Your task to perform on an android device: Clear all items from cart on target.com. Image 0: 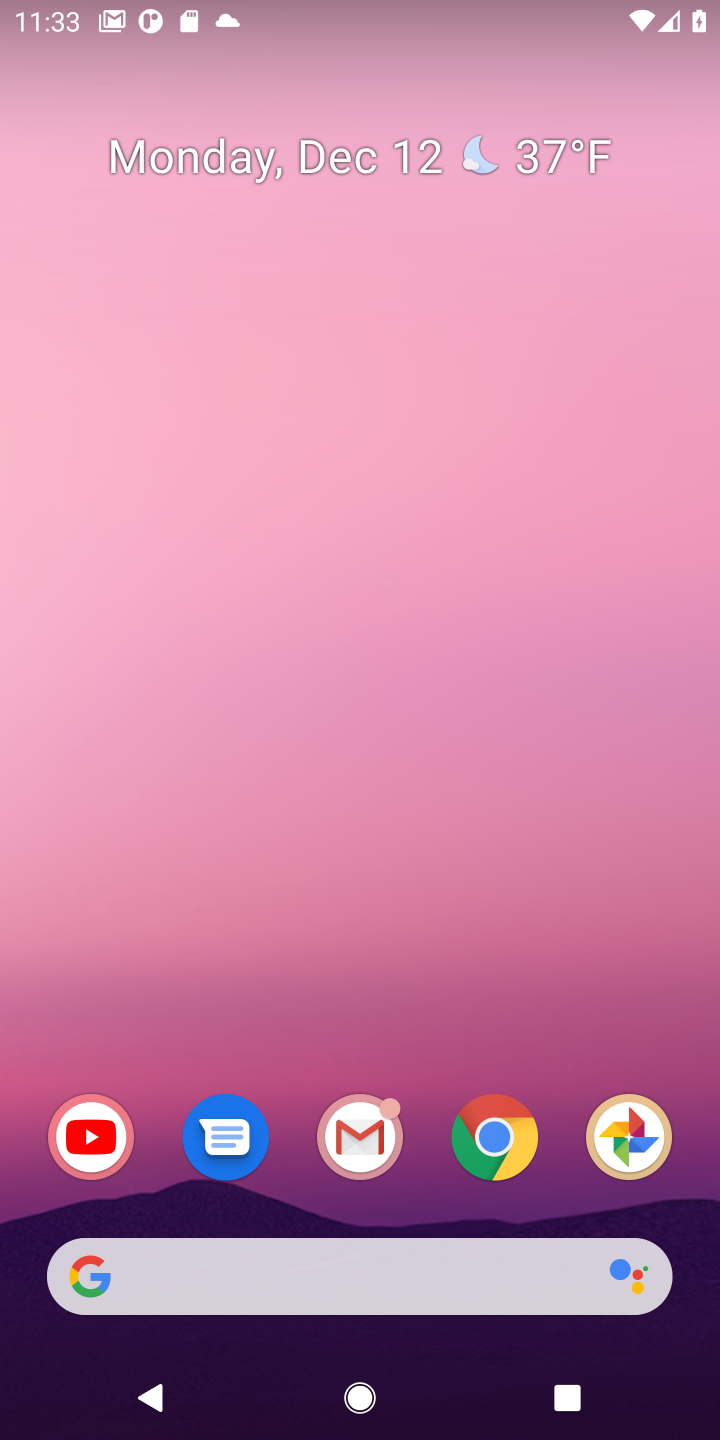
Step 0: click (436, 1298)
Your task to perform on an android device: Clear all items from cart on target.com. Image 1: 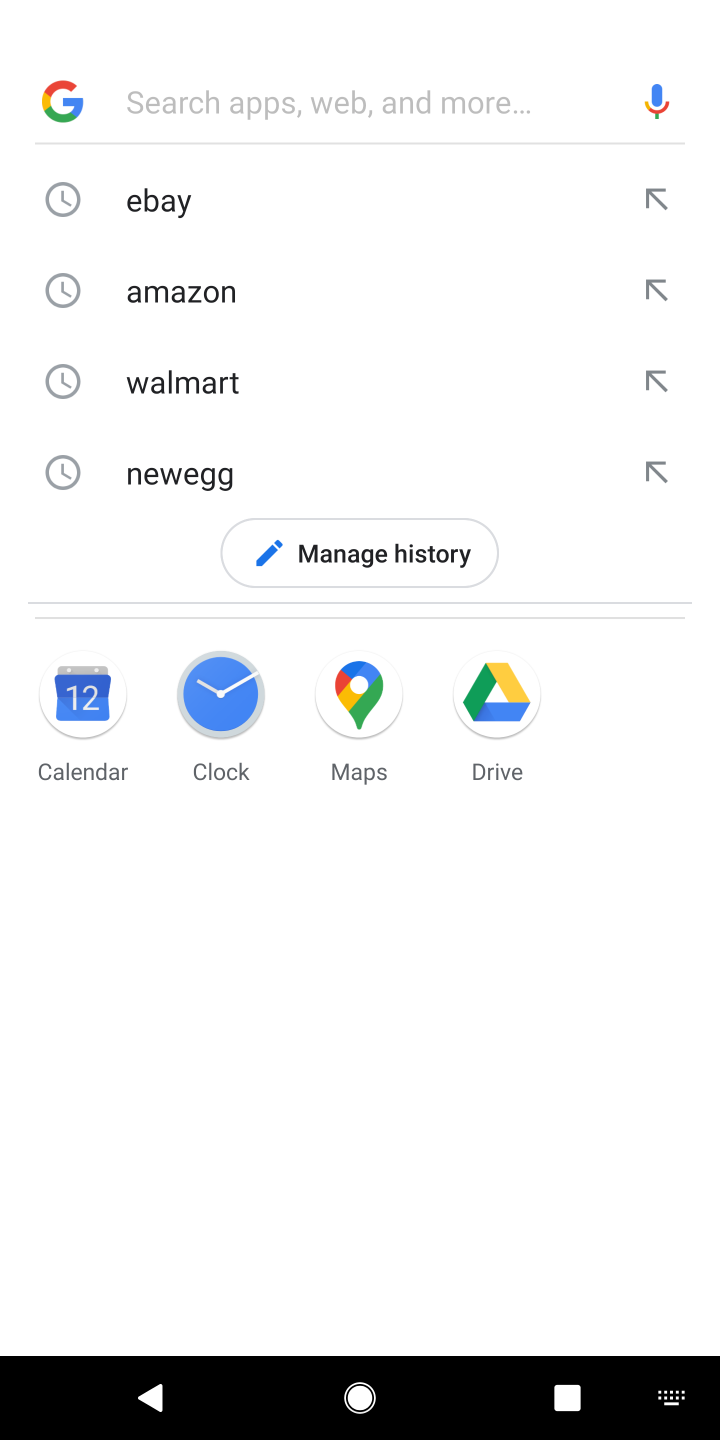
Step 1: type "target"
Your task to perform on an android device: Clear all items from cart on target.com. Image 2: 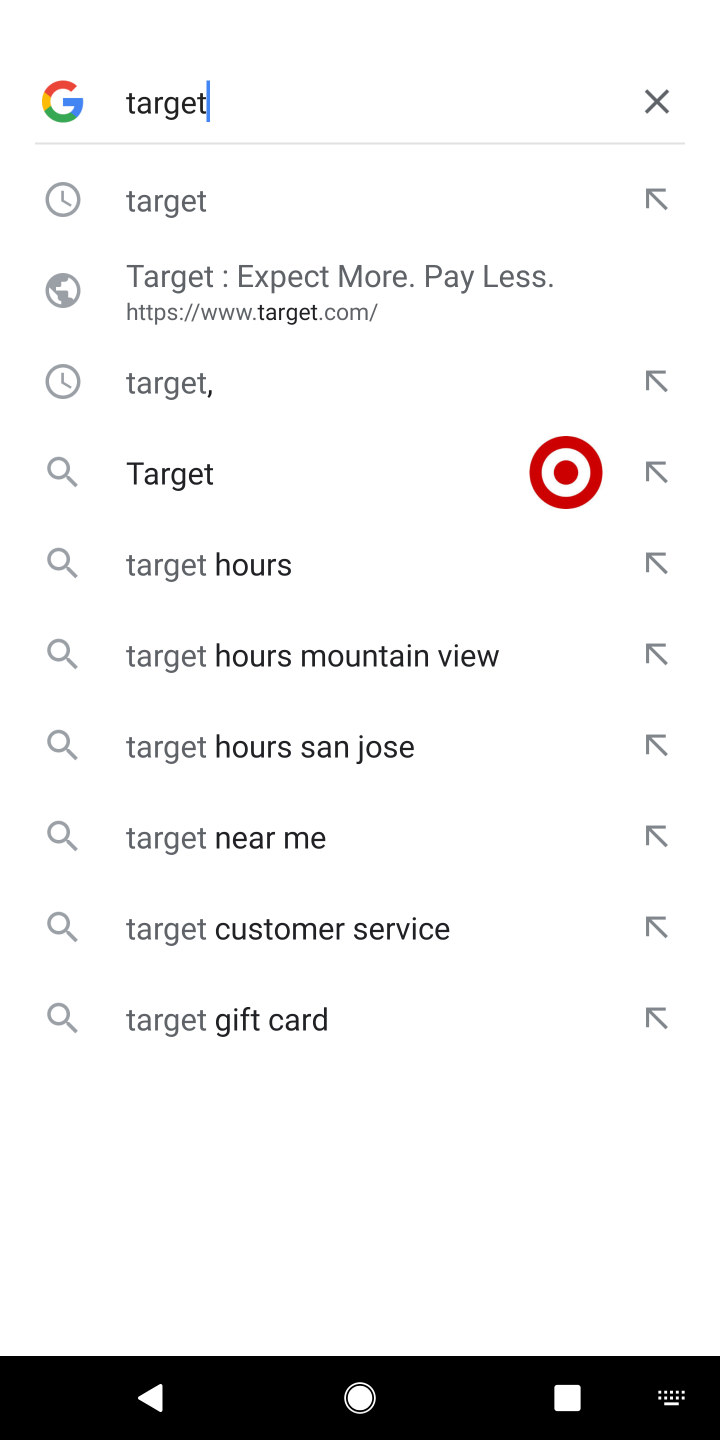
Step 2: click (222, 479)
Your task to perform on an android device: Clear all items from cart on target.com. Image 3: 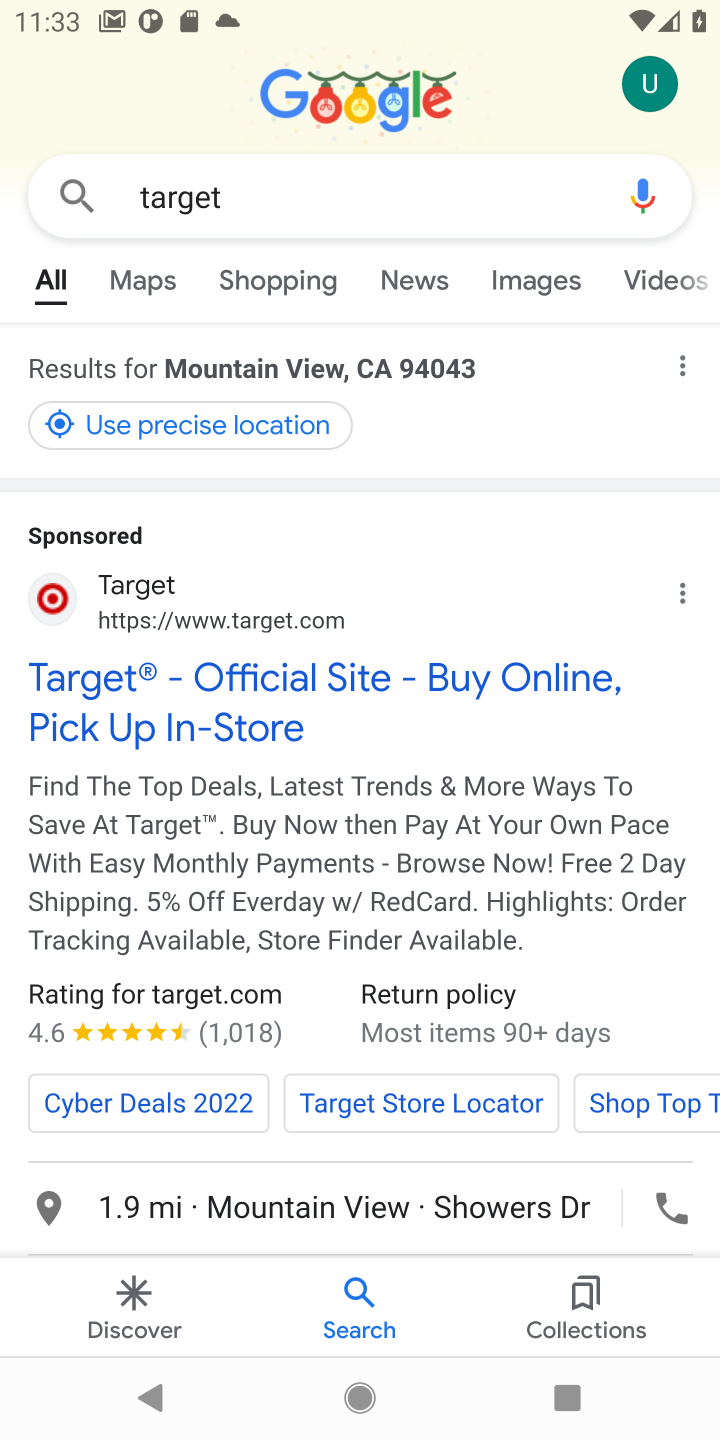
Step 3: click (147, 669)
Your task to perform on an android device: Clear all items from cart on target.com. Image 4: 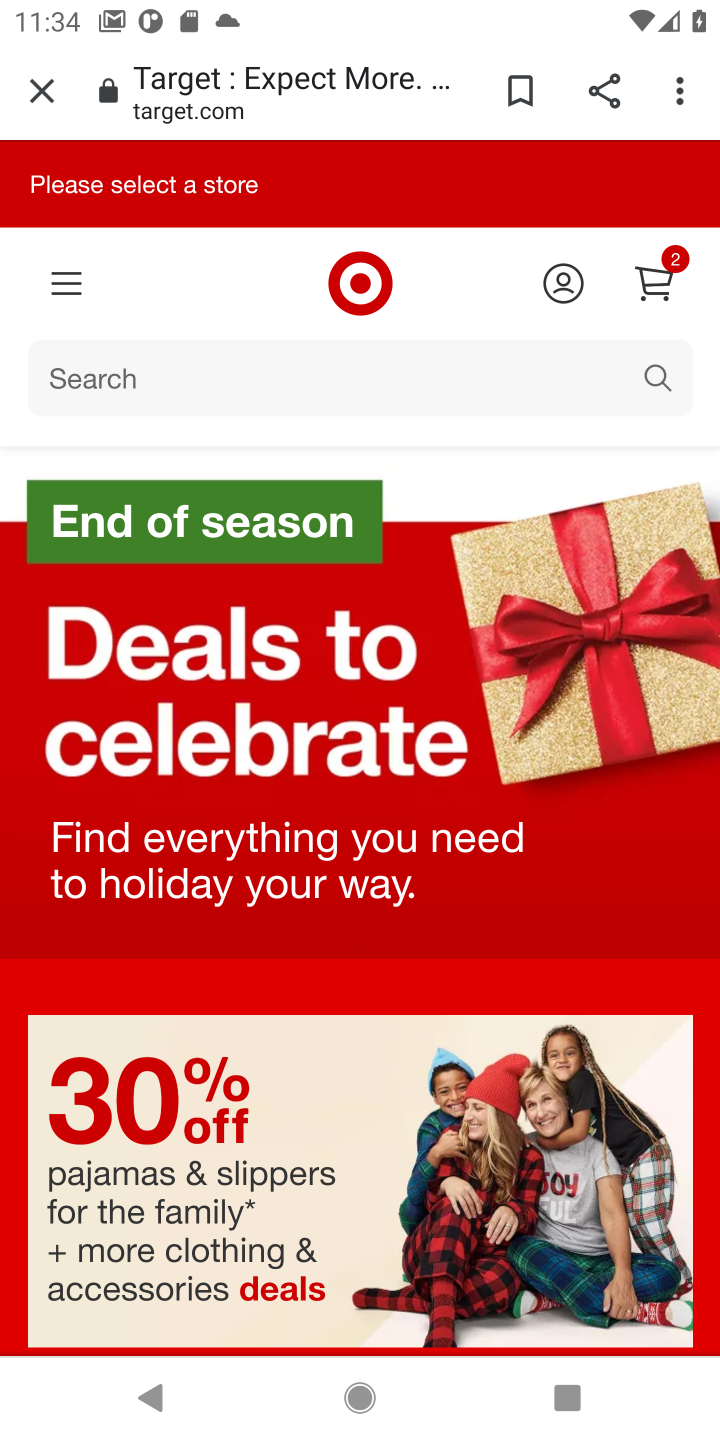
Step 4: click (123, 383)
Your task to perform on an android device: Clear all items from cart on target.com. Image 5: 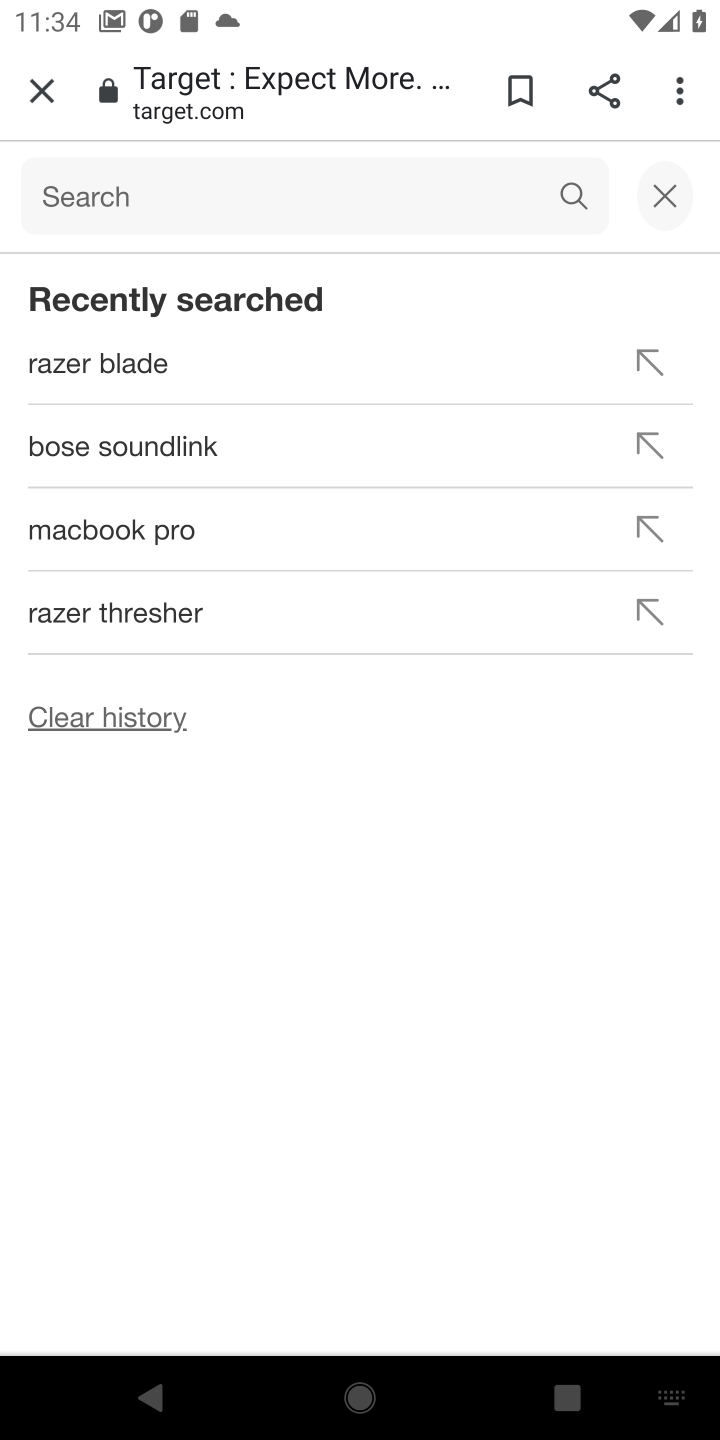
Step 5: click (658, 200)
Your task to perform on an android device: Clear all items from cart on target.com. Image 6: 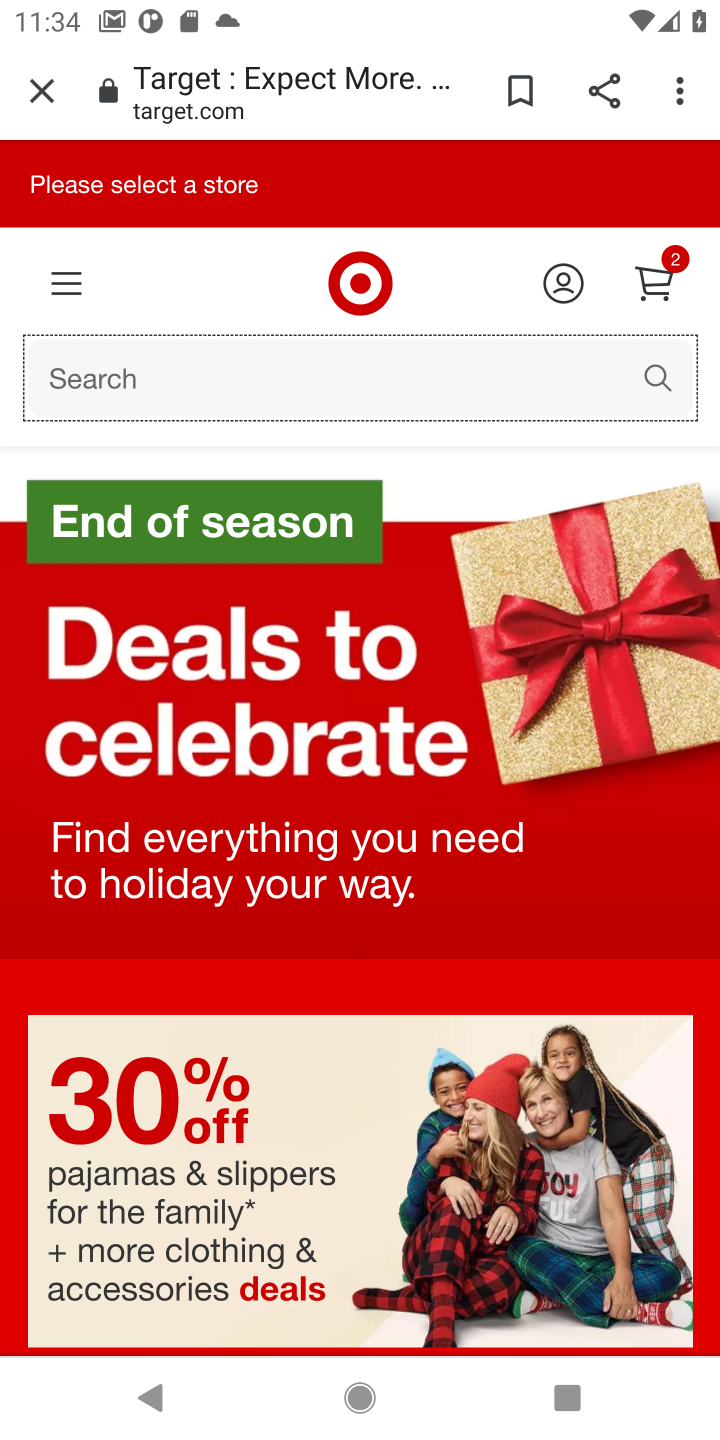
Step 6: click (638, 280)
Your task to perform on an android device: Clear all items from cart on target.com. Image 7: 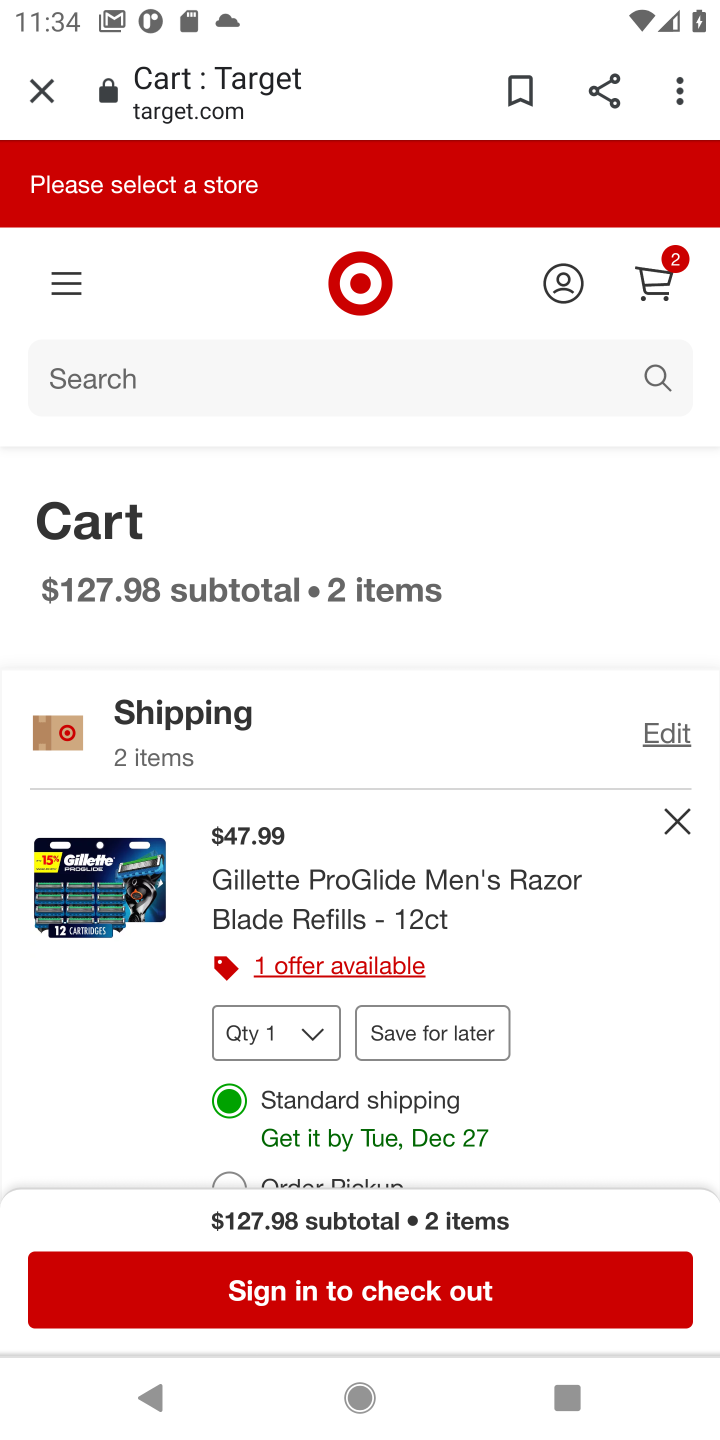
Step 7: click (677, 830)
Your task to perform on an android device: Clear all items from cart on target.com. Image 8: 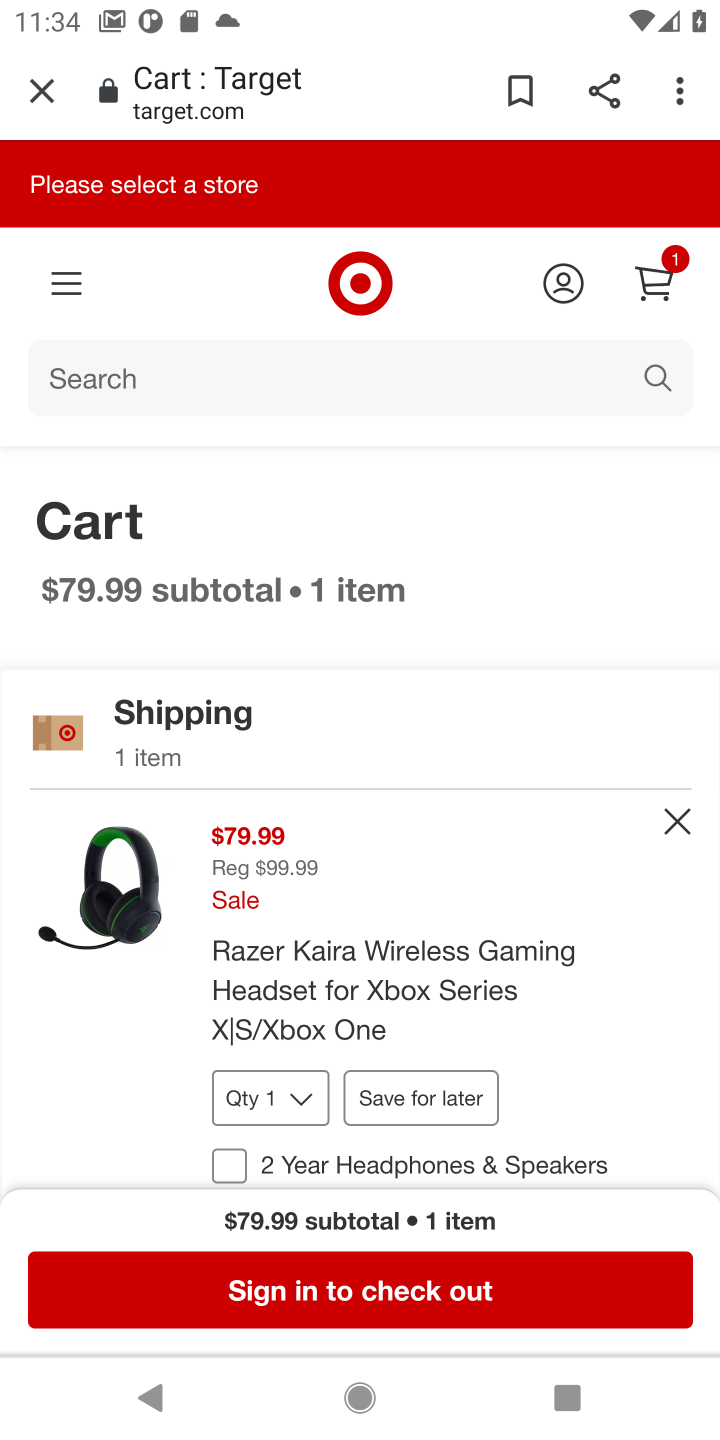
Step 8: click (671, 838)
Your task to perform on an android device: Clear all items from cart on target.com. Image 9: 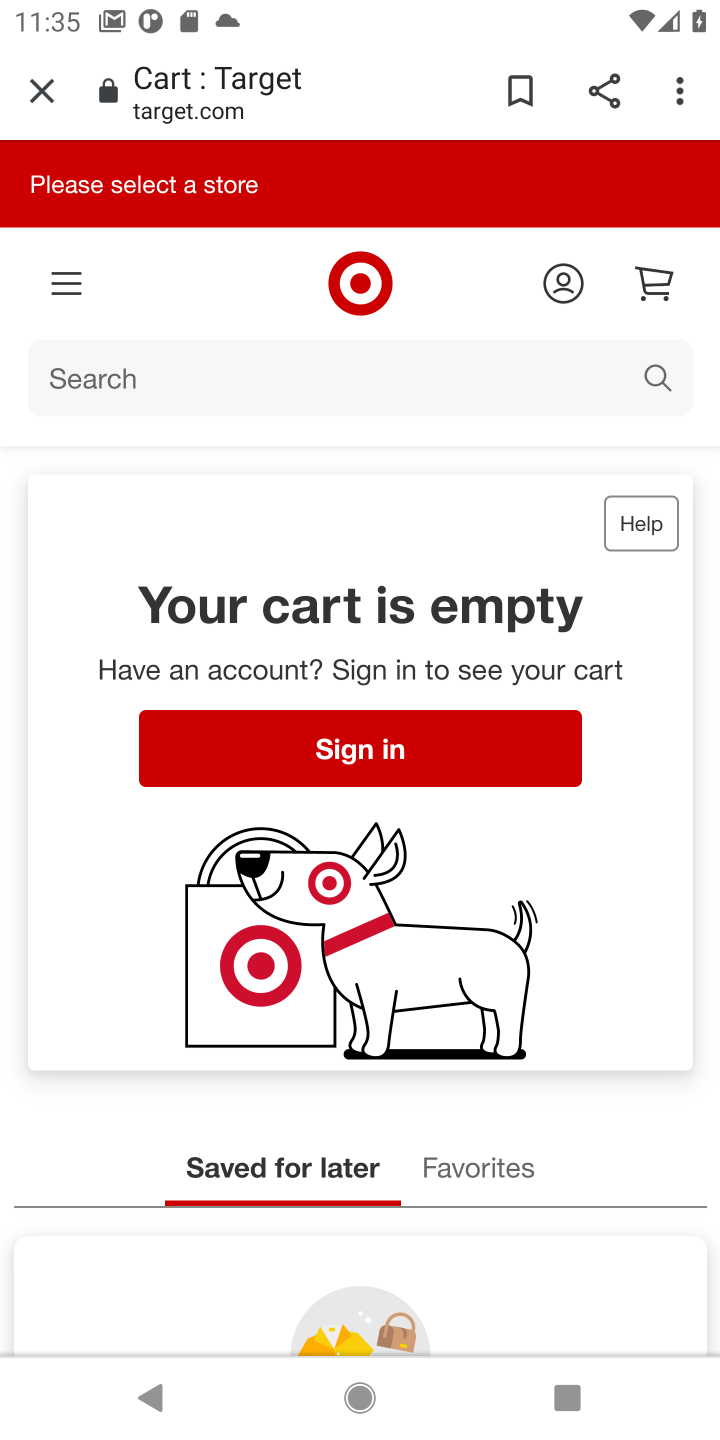
Step 9: task complete